Your task to perform on an android device: move a message to another label in the gmail app Image 0: 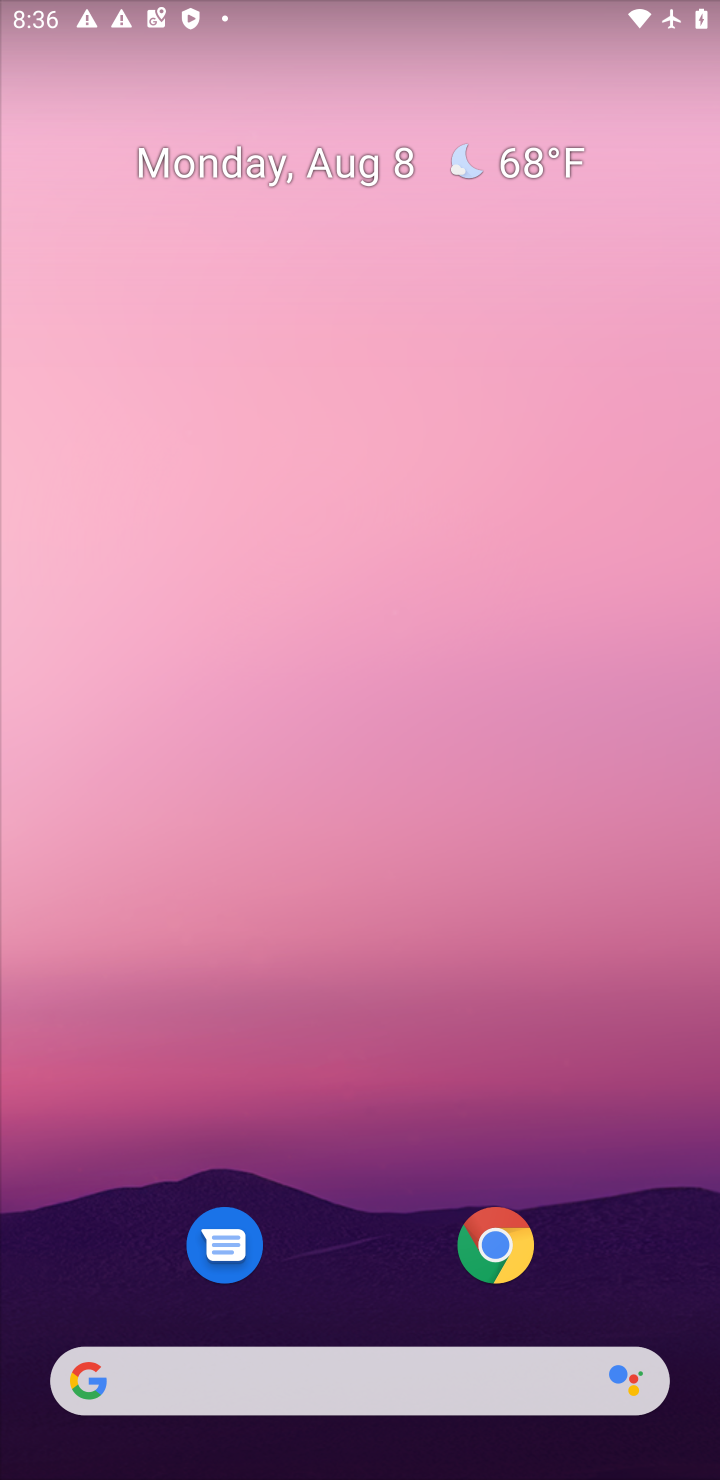
Step 0: drag from (346, 1232) to (476, 0)
Your task to perform on an android device: move a message to another label in the gmail app Image 1: 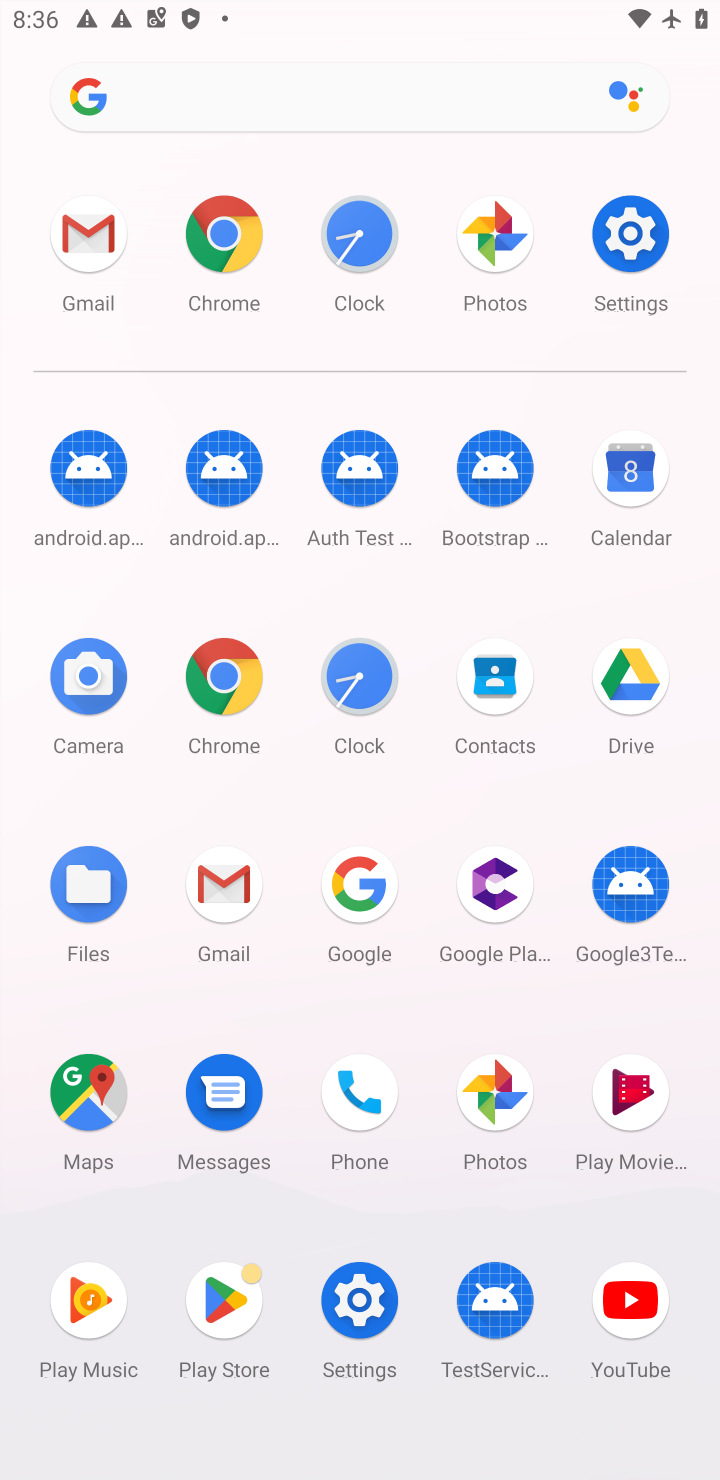
Step 1: click (236, 905)
Your task to perform on an android device: move a message to another label in the gmail app Image 2: 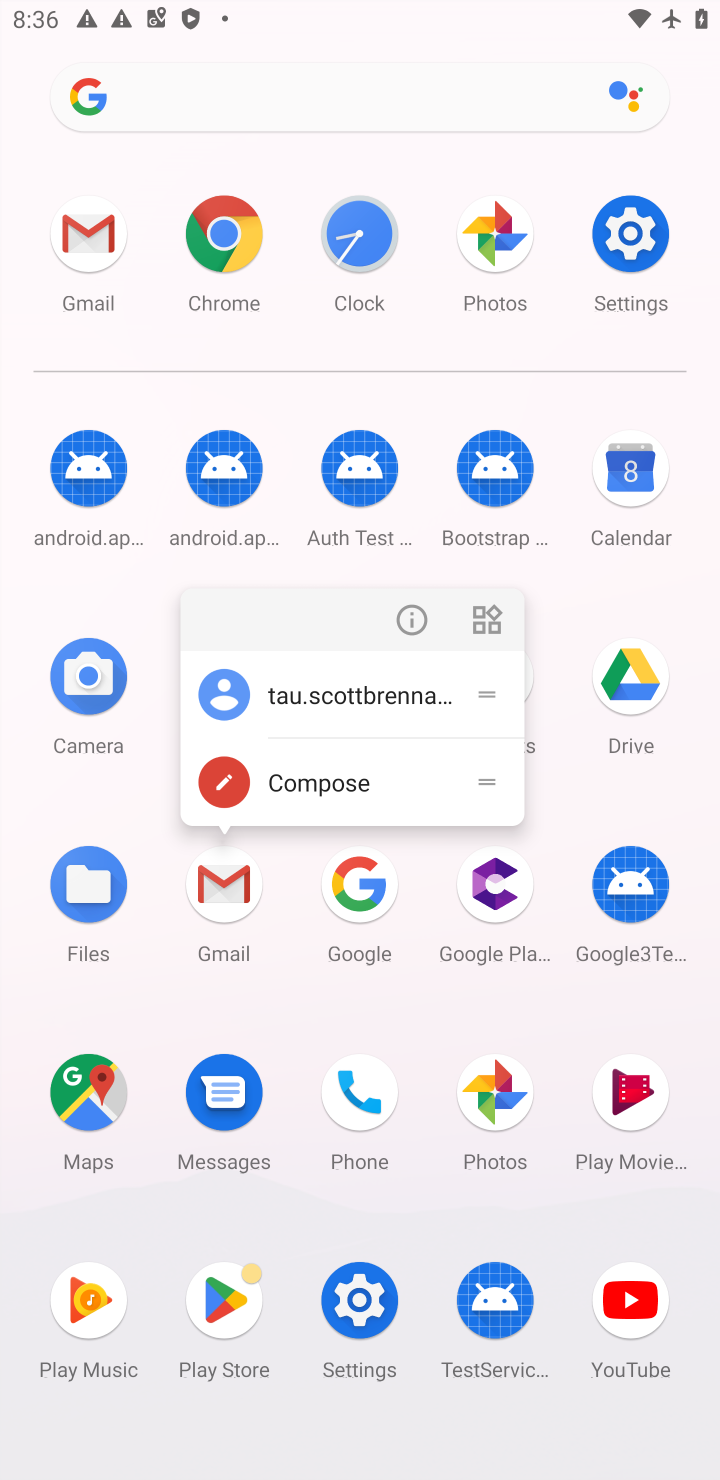
Step 2: click (247, 911)
Your task to perform on an android device: move a message to another label in the gmail app Image 3: 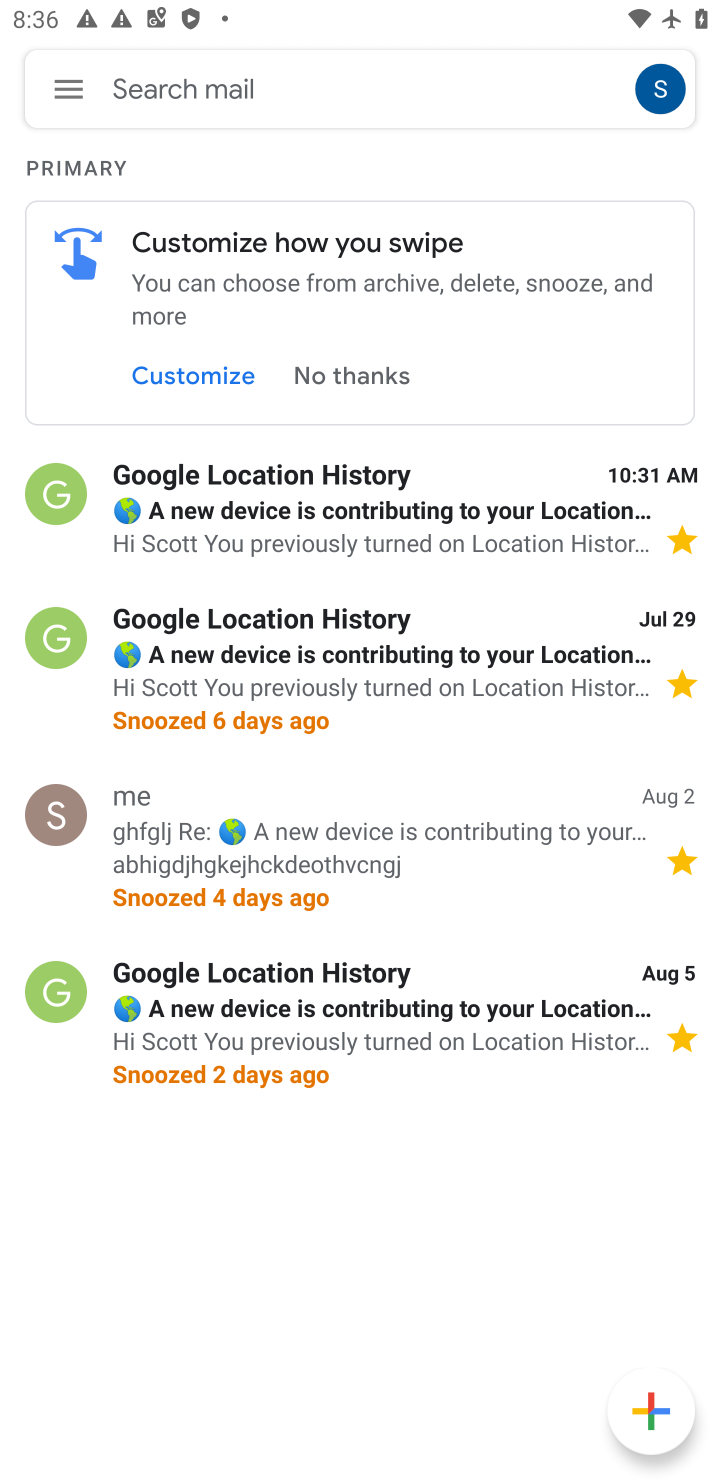
Step 3: click (38, 486)
Your task to perform on an android device: move a message to another label in the gmail app Image 4: 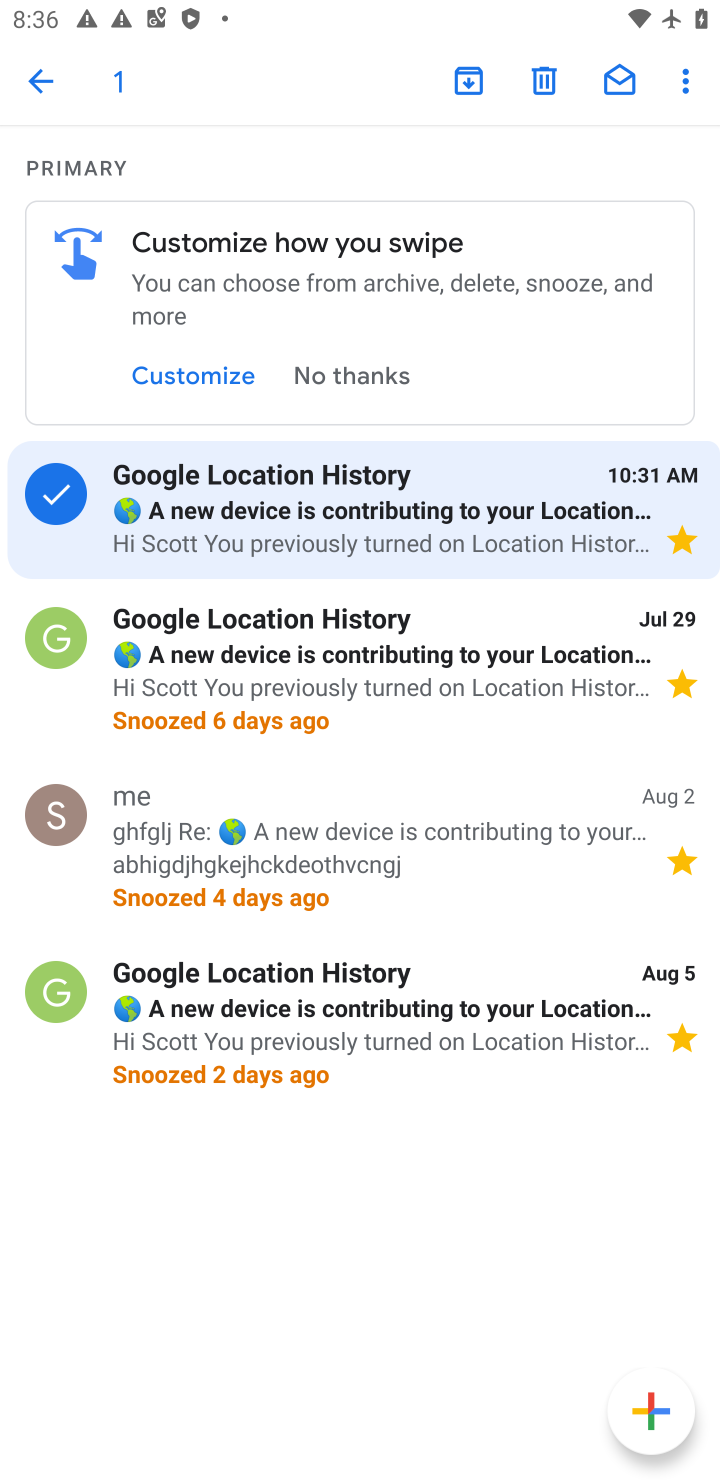
Step 4: click (678, 91)
Your task to perform on an android device: move a message to another label in the gmail app Image 5: 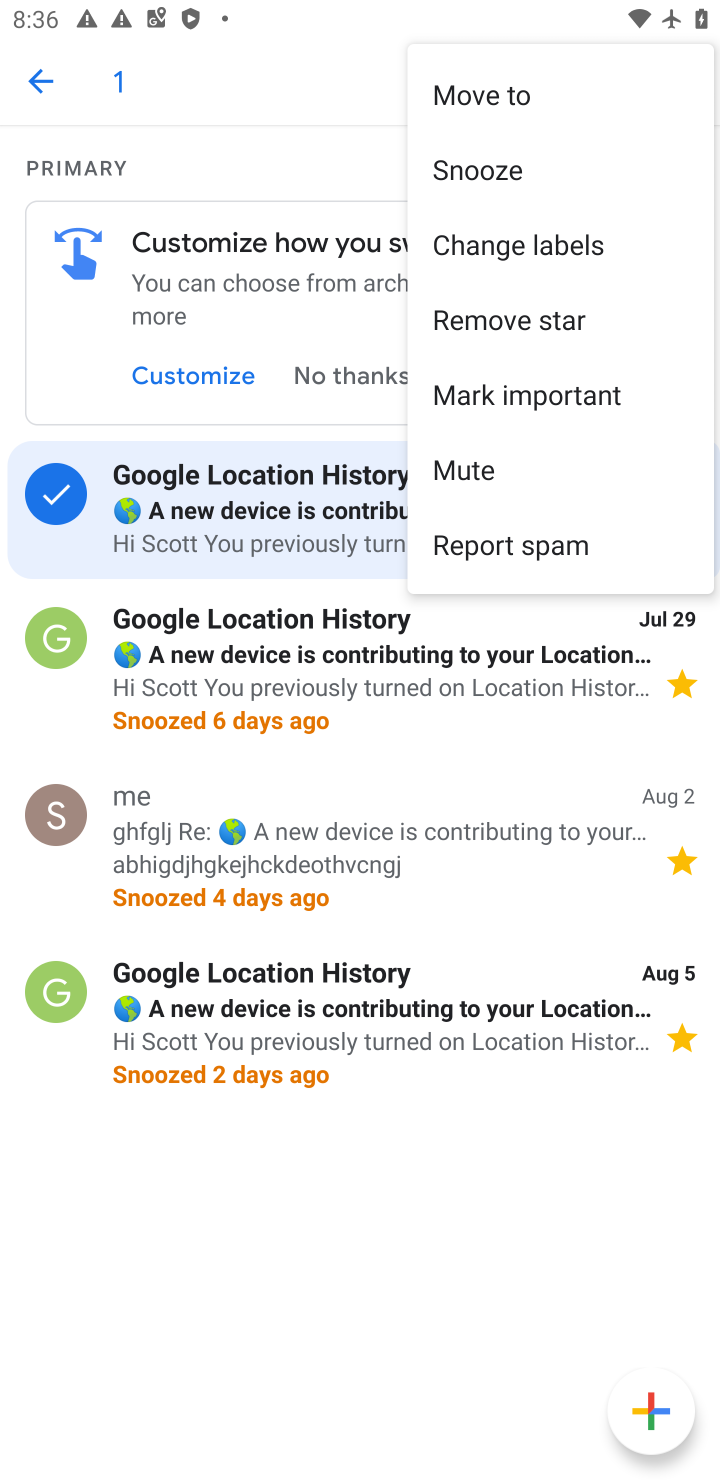
Step 5: click (522, 105)
Your task to perform on an android device: move a message to another label in the gmail app Image 6: 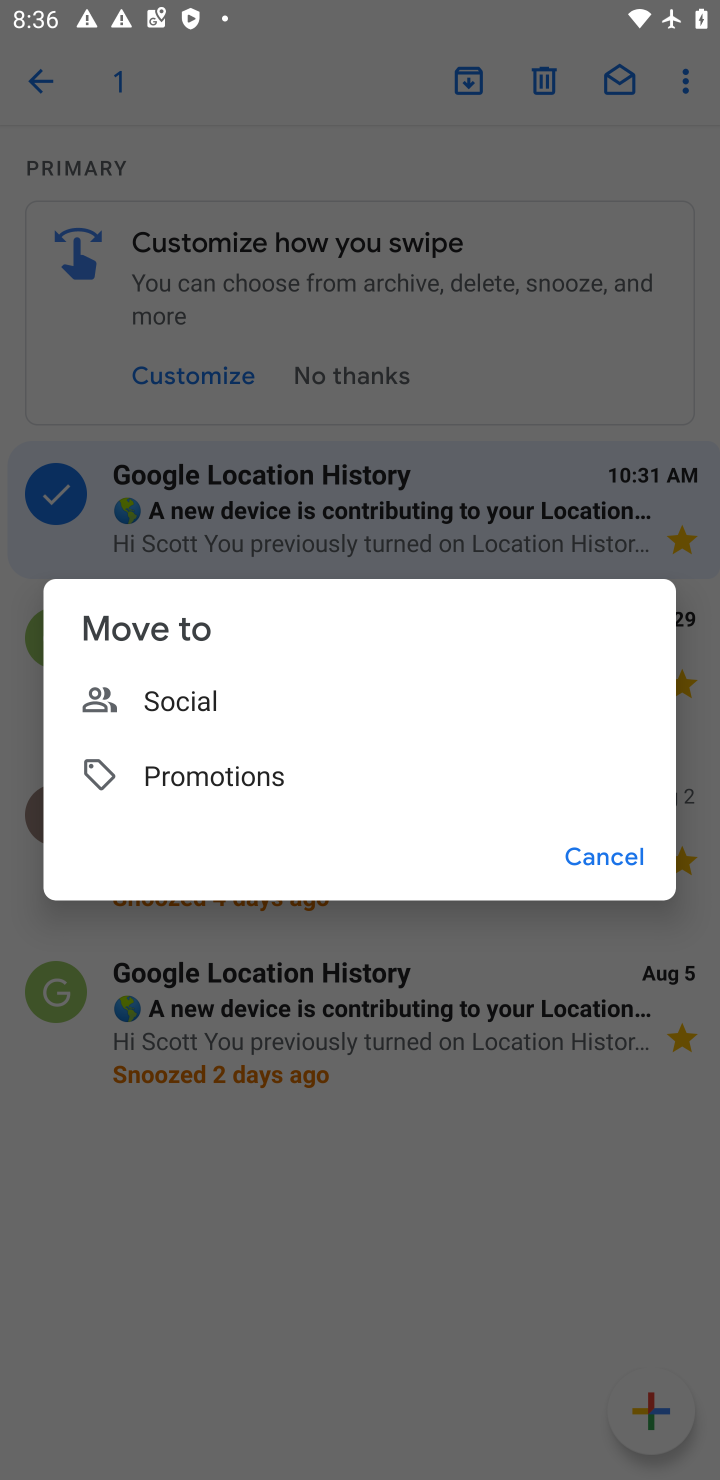
Step 6: click (177, 771)
Your task to perform on an android device: move a message to another label in the gmail app Image 7: 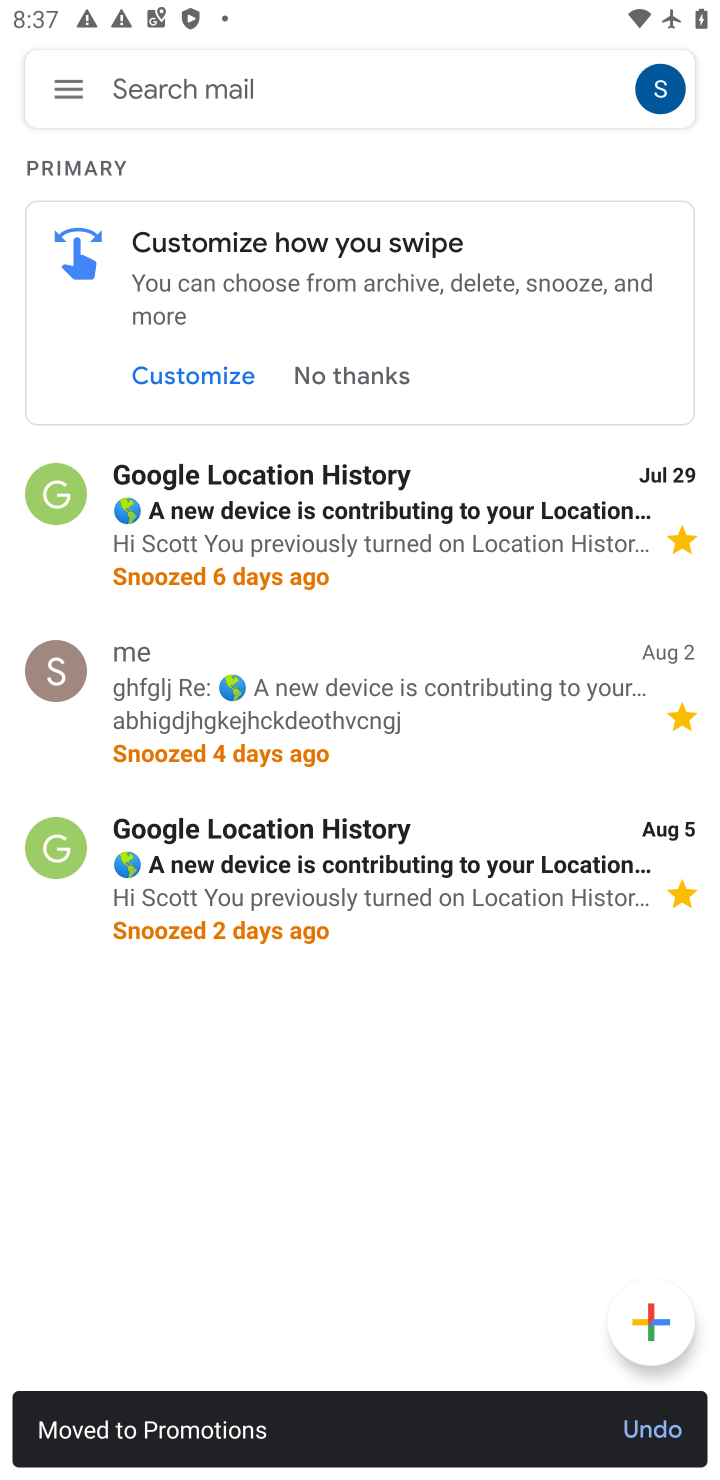
Step 7: task complete